Your task to perform on an android device: Search for flights from NYC to Buenos aires Image 0: 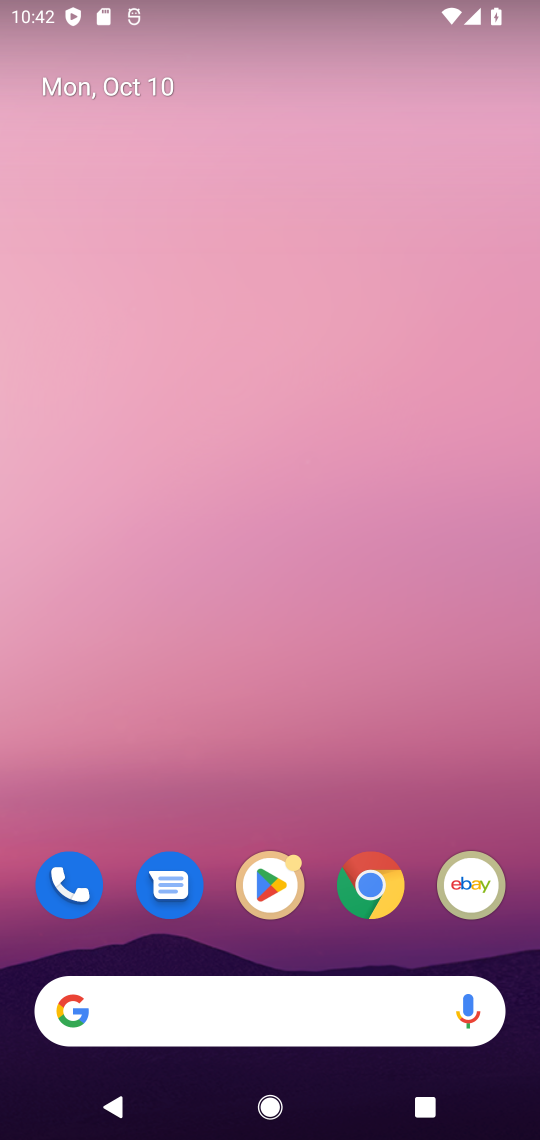
Step 0: drag from (321, 996) to (468, 87)
Your task to perform on an android device: Search for flights from NYC to Buenos aires Image 1: 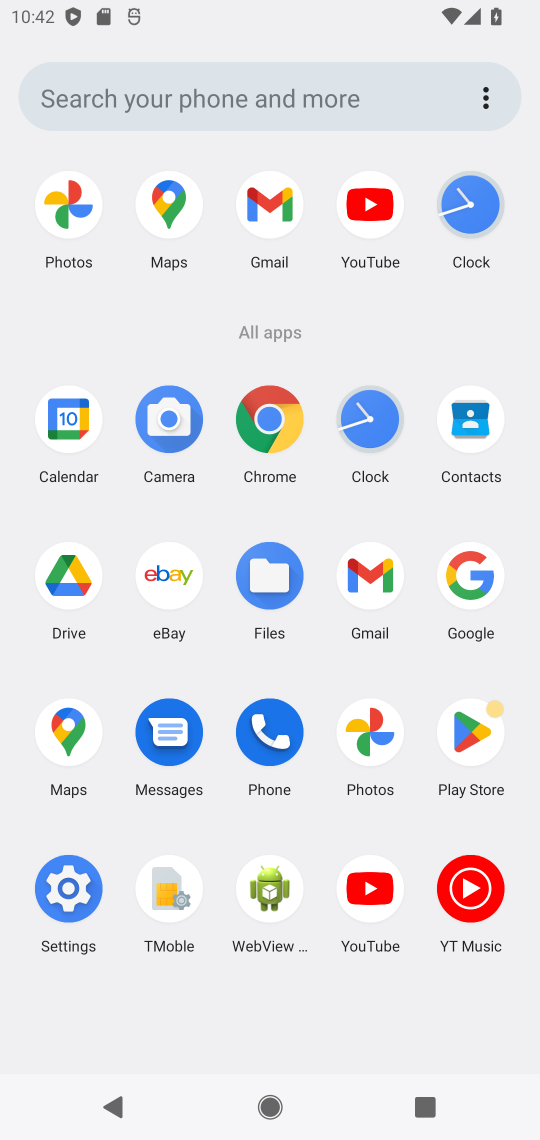
Step 1: click (461, 626)
Your task to perform on an android device: Search for flights from NYC to Buenos aires Image 2: 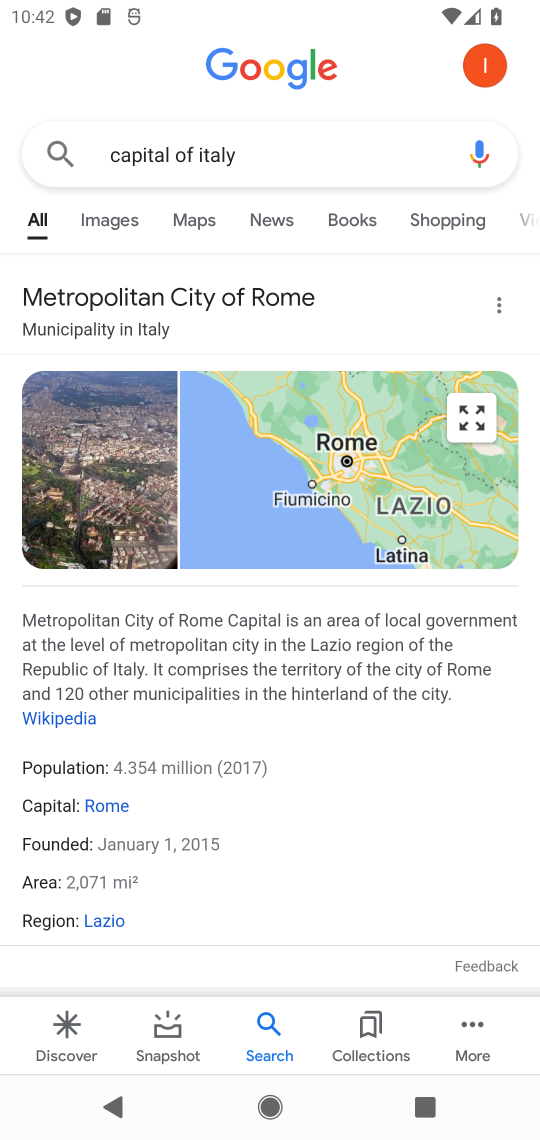
Step 2: click (398, 172)
Your task to perform on an android device: Search for flights from NYC to Buenos aires Image 3: 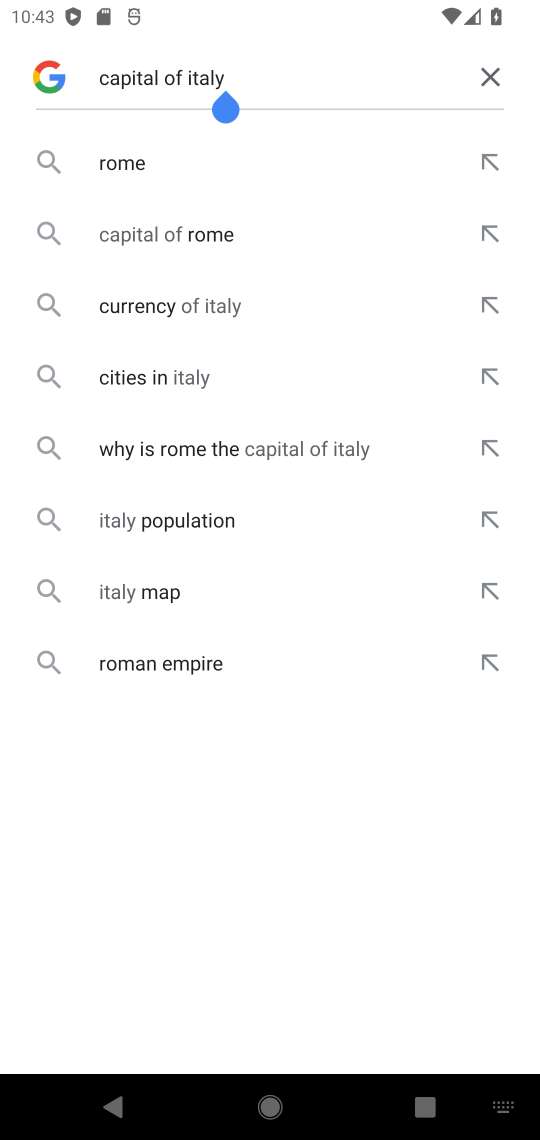
Step 3: click (484, 73)
Your task to perform on an android device: Search for flights from NYC to Buenos aires Image 4: 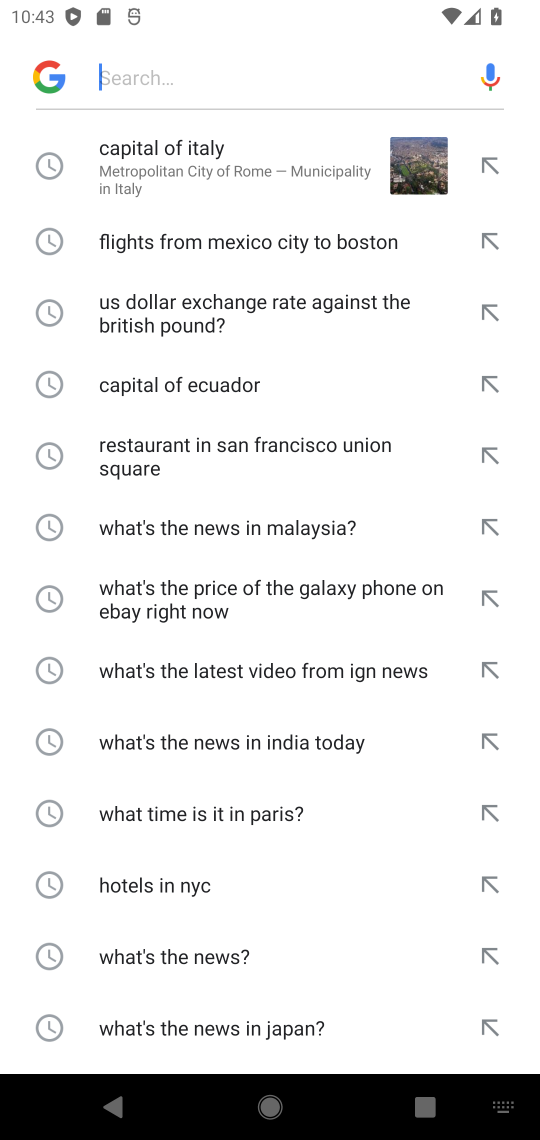
Step 4: type "flights from NYC to Buenos aires"
Your task to perform on an android device: Search for flights from NYC to Buenos aires Image 5: 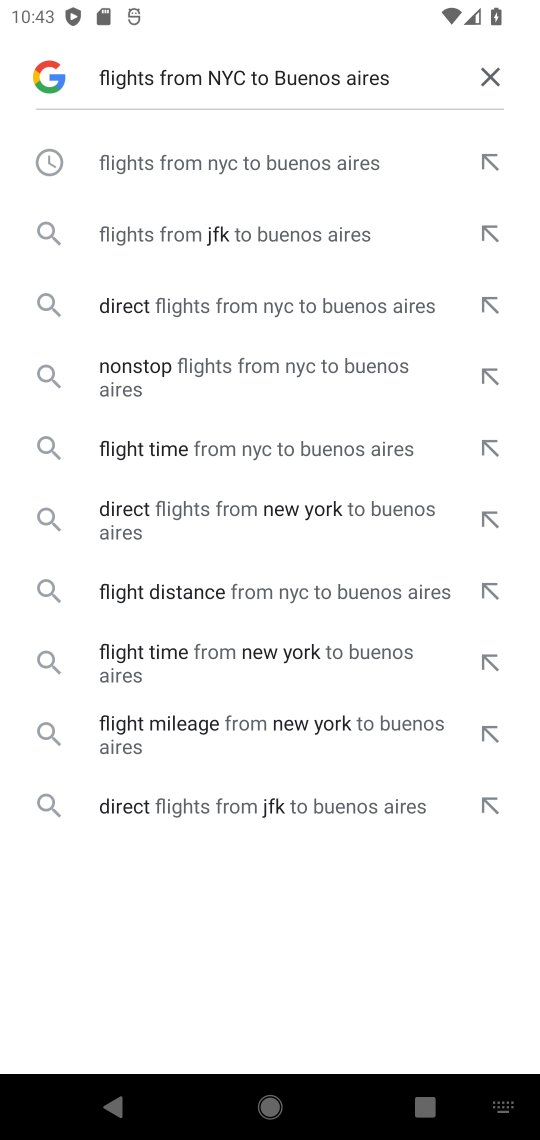
Step 5: click (387, 154)
Your task to perform on an android device: Search for flights from NYC to Buenos aires Image 6: 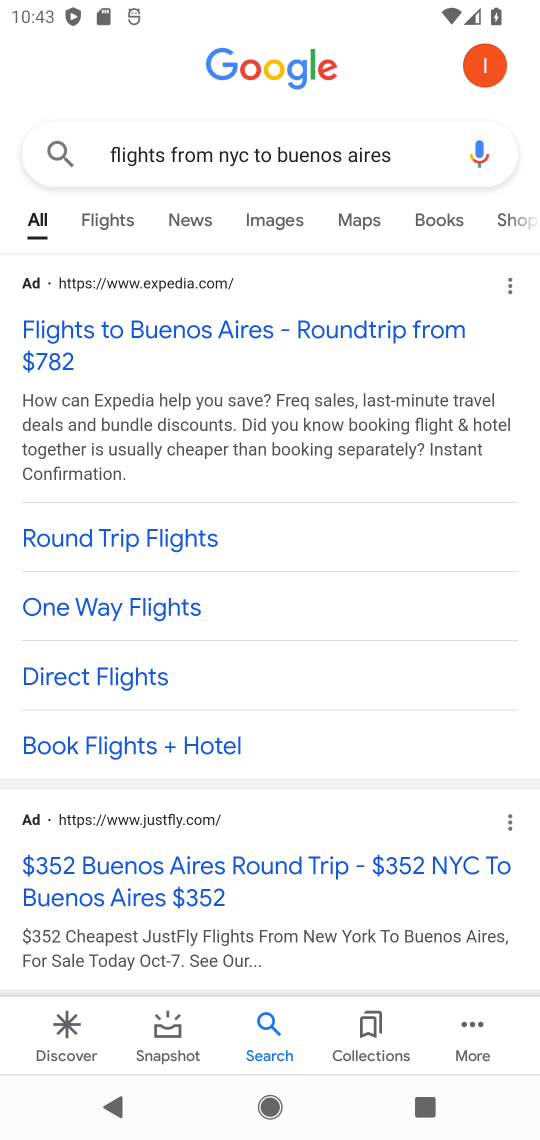
Step 6: click (117, 209)
Your task to perform on an android device: Search for flights from NYC to Buenos aires Image 7: 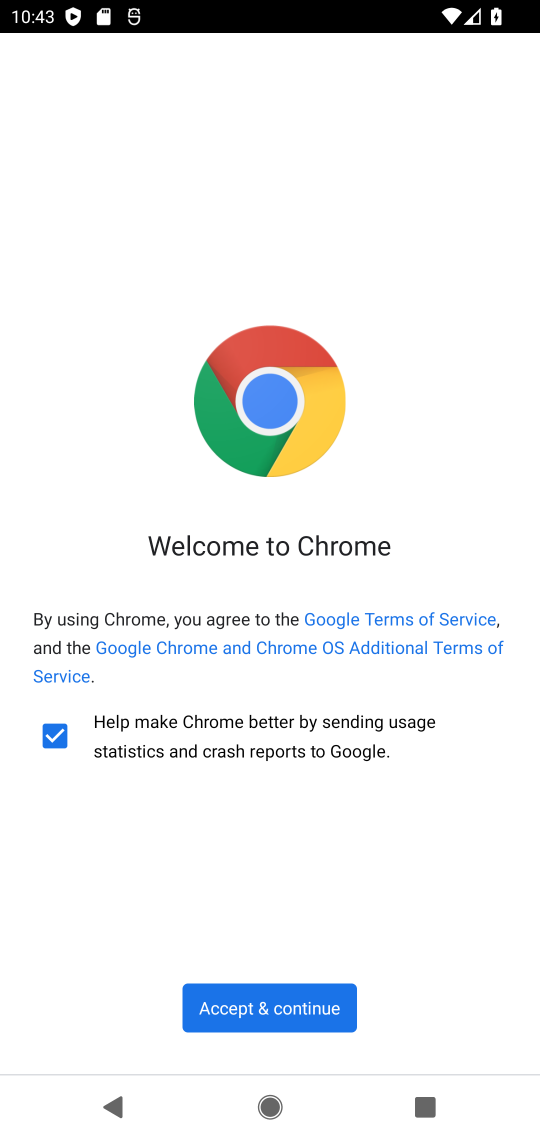
Step 7: click (248, 999)
Your task to perform on an android device: Search for flights from NYC to Buenos aires Image 8: 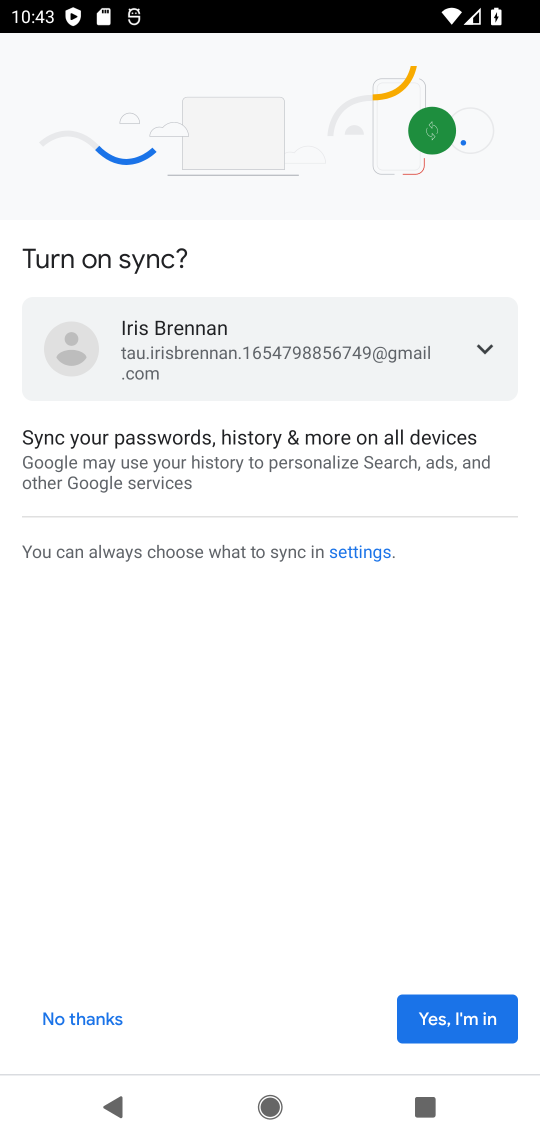
Step 8: click (448, 997)
Your task to perform on an android device: Search for flights from NYC to Buenos aires Image 9: 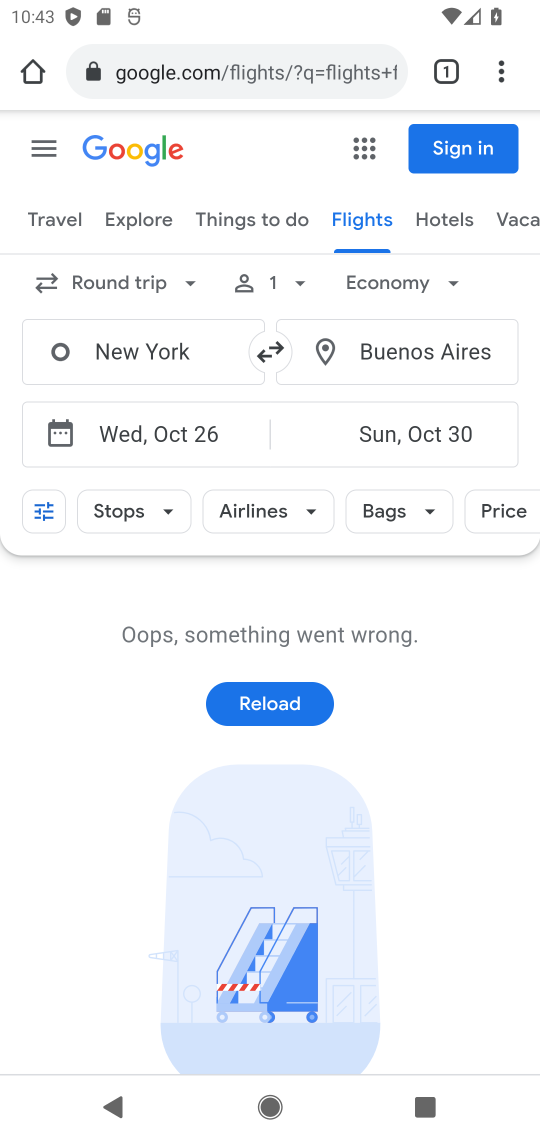
Step 9: task complete